Your task to perform on an android device: toggle notifications settings in the gmail app Image 0: 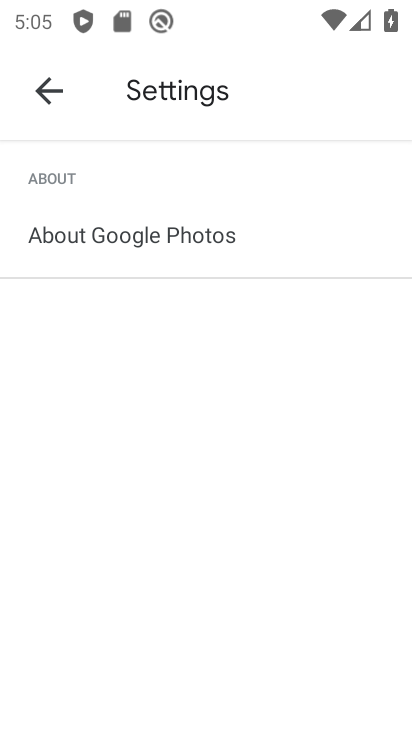
Step 0: press home button
Your task to perform on an android device: toggle notifications settings in the gmail app Image 1: 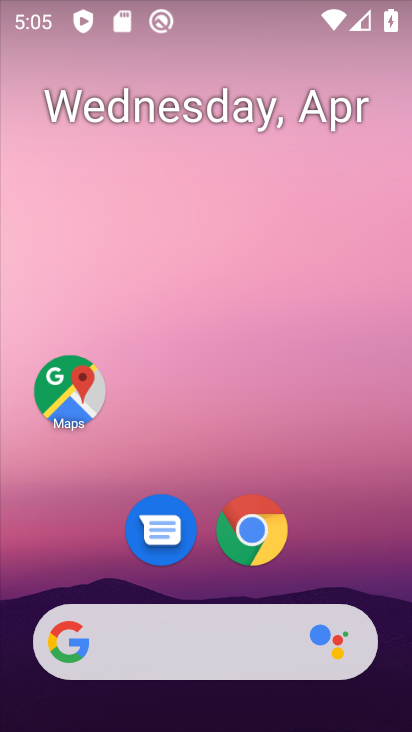
Step 1: drag from (337, 557) to (317, 2)
Your task to perform on an android device: toggle notifications settings in the gmail app Image 2: 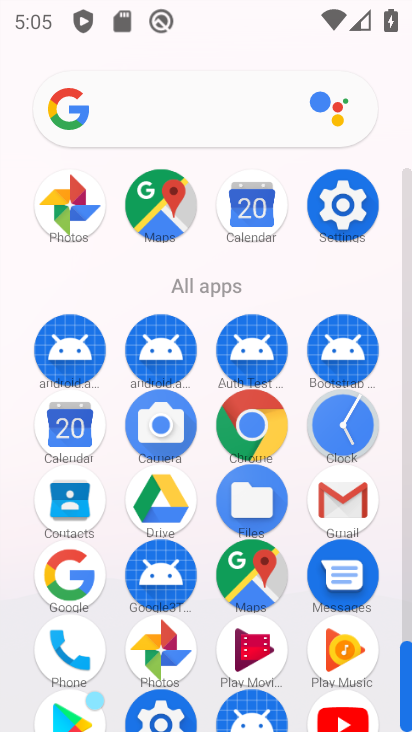
Step 2: click (343, 504)
Your task to perform on an android device: toggle notifications settings in the gmail app Image 3: 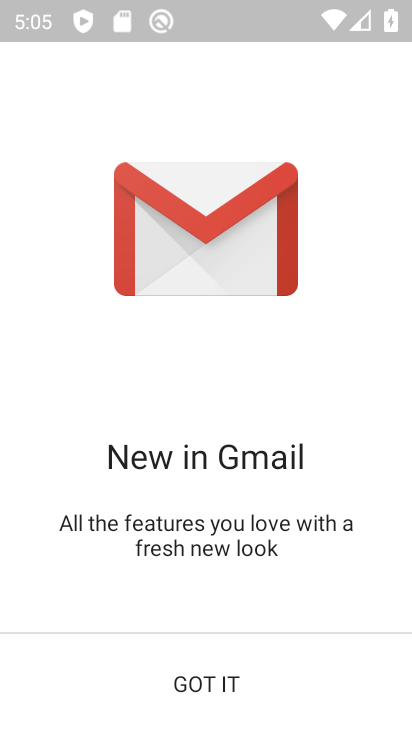
Step 3: click (200, 684)
Your task to perform on an android device: toggle notifications settings in the gmail app Image 4: 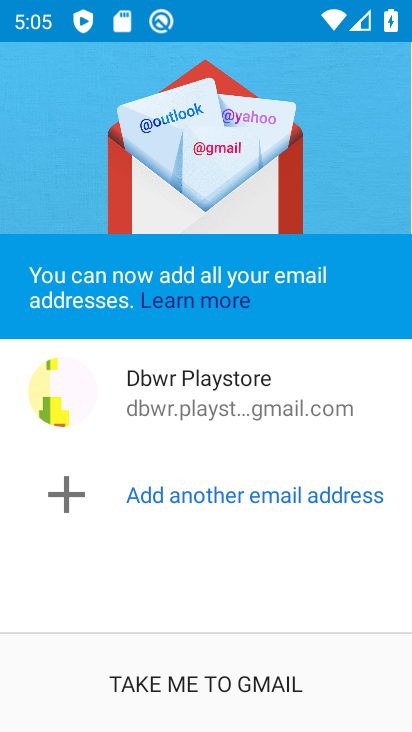
Step 4: click (200, 684)
Your task to perform on an android device: toggle notifications settings in the gmail app Image 5: 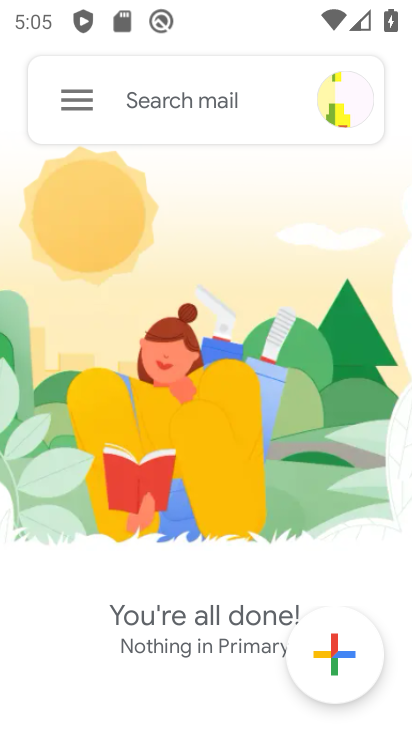
Step 5: click (74, 106)
Your task to perform on an android device: toggle notifications settings in the gmail app Image 6: 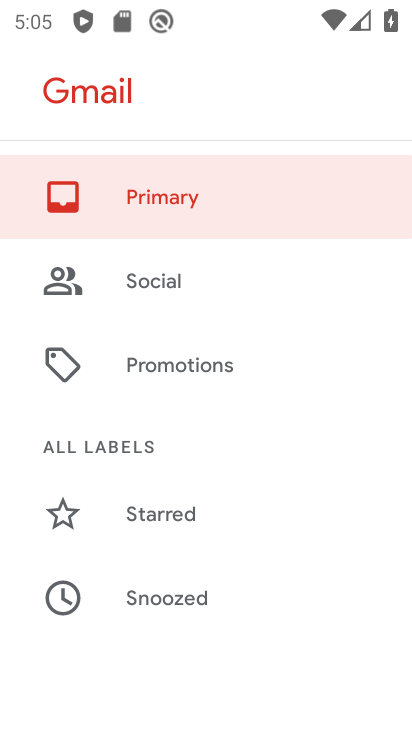
Step 6: drag from (206, 571) to (247, 388)
Your task to perform on an android device: toggle notifications settings in the gmail app Image 7: 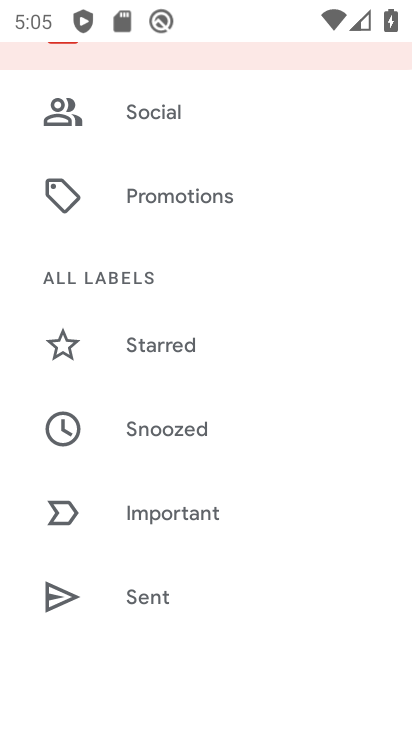
Step 7: drag from (209, 553) to (210, 416)
Your task to perform on an android device: toggle notifications settings in the gmail app Image 8: 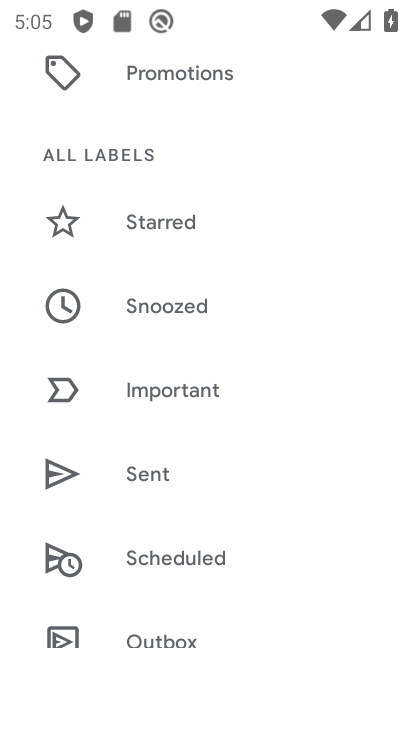
Step 8: drag from (204, 511) to (219, 426)
Your task to perform on an android device: toggle notifications settings in the gmail app Image 9: 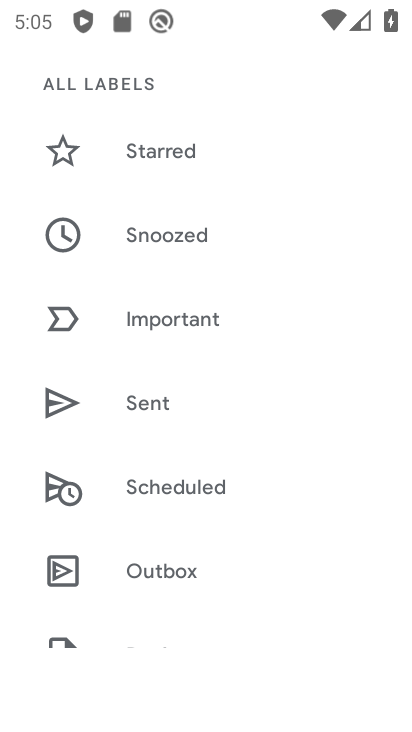
Step 9: drag from (202, 541) to (203, 399)
Your task to perform on an android device: toggle notifications settings in the gmail app Image 10: 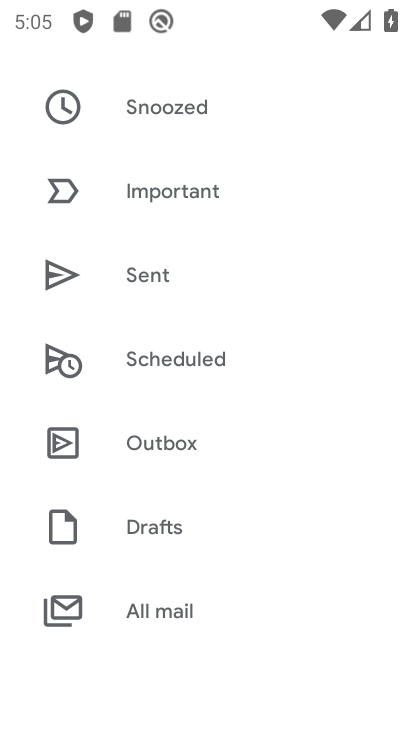
Step 10: drag from (194, 582) to (219, 438)
Your task to perform on an android device: toggle notifications settings in the gmail app Image 11: 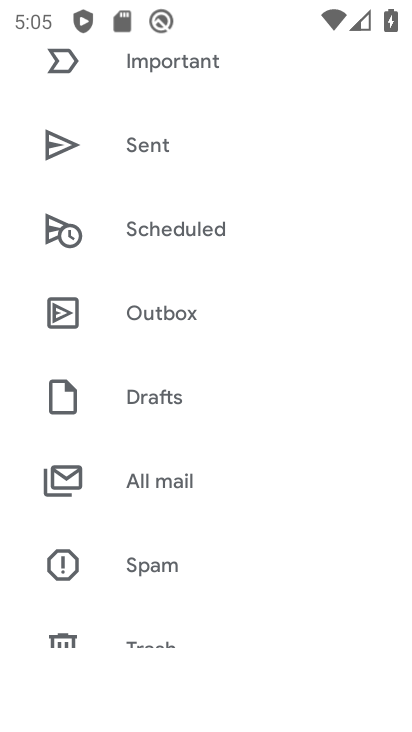
Step 11: drag from (176, 606) to (203, 440)
Your task to perform on an android device: toggle notifications settings in the gmail app Image 12: 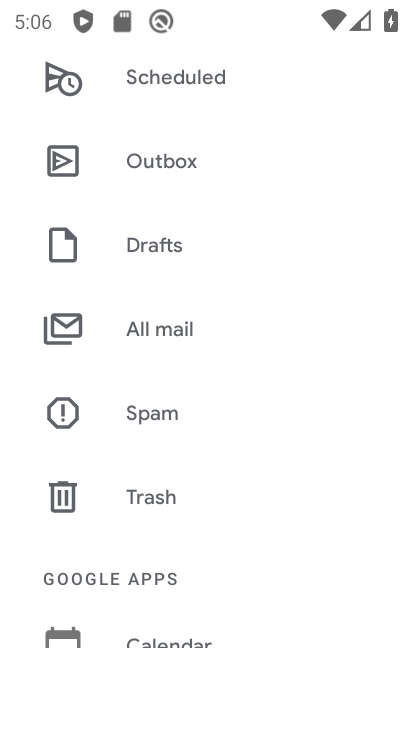
Step 12: drag from (188, 558) to (216, 396)
Your task to perform on an android device: toggle notifications settings in the gmail app Image 13: 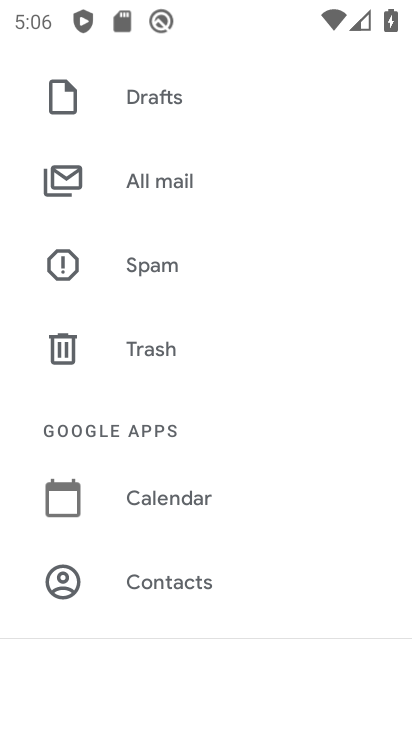
Step 13: drag from (182, 522) to (222, 358)
Your task to perform on an android device: toggle notifications settings in the gmail app Image 14: 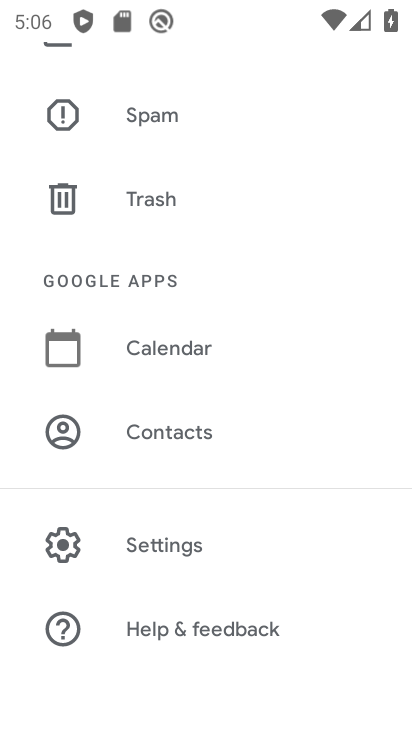
Step 14: click (184, 547)
Your task to perform on an android device: toggle notifications settings in the gmail app Image 15: 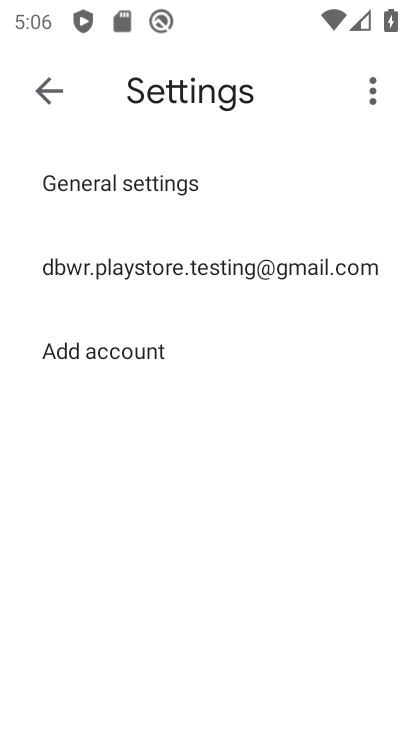
Step 15: click (237, 275)
Your task to perform on an android device: toggle notifications settings in the gmail app Image 16: 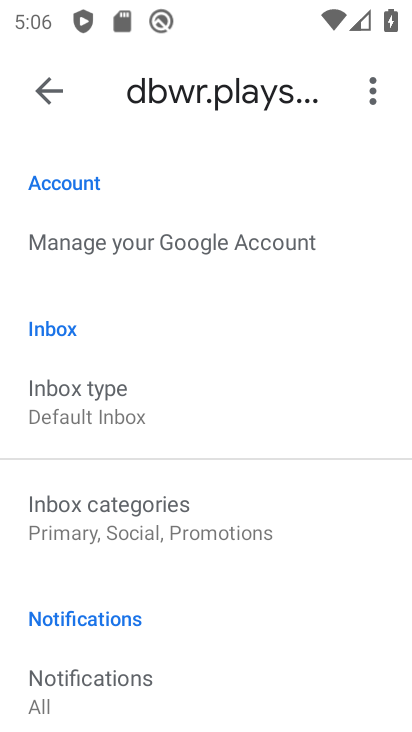
Step 16: drag from (151, 603) to (180, 379)
Your task to perform on an android device: toggle notifications settings in the gmail app Image 17: 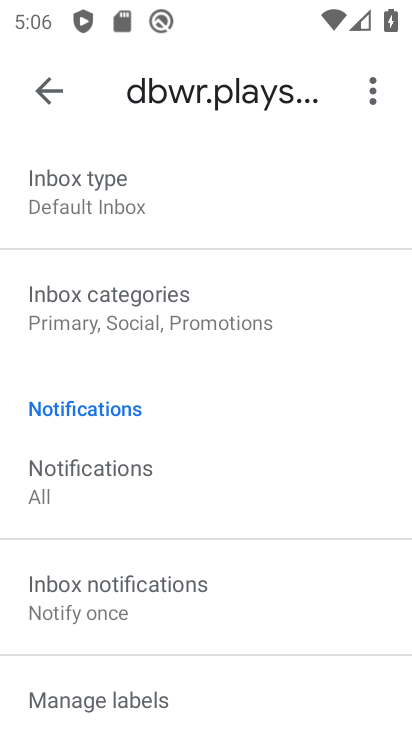
Step 17: drag from (188, 490) to (207, 329)
Your task to perform on an android device: toggle notifications settings in the gmail app Image 18: 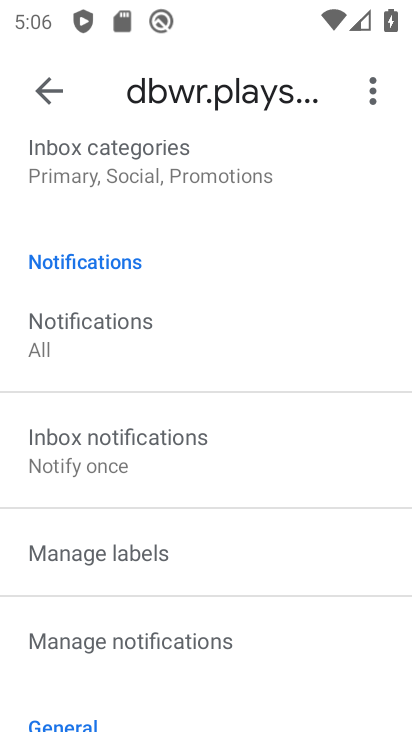
Step 18: drag from (199, 597) to (218, 395)
Your task to perform on an android device: toggle notifications settings in the gmail app Image 19: 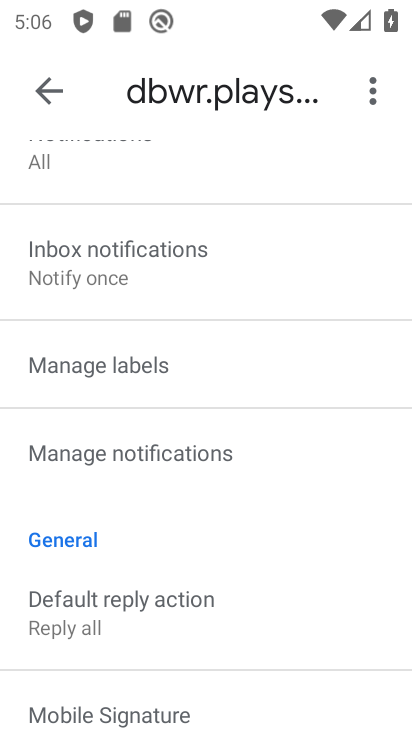
Step 19: click (205, 453)
Your task to perform on an android device: toggle notifications settings in the gmail app Image 20: 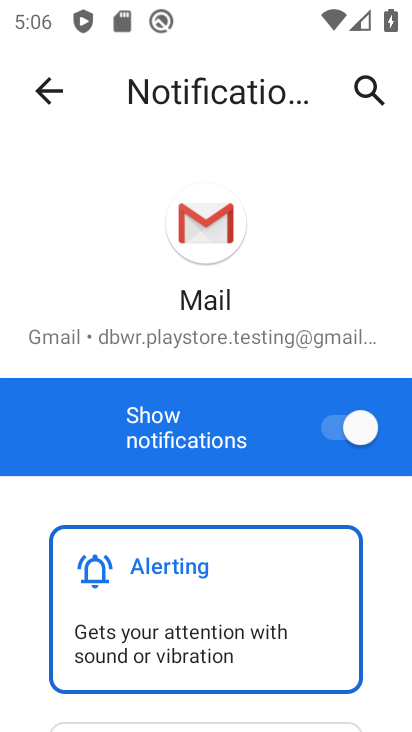
Step 20: click (361, 436)
Your task to perform on an android device: toggle notifications settings in the gmail app Image 21: 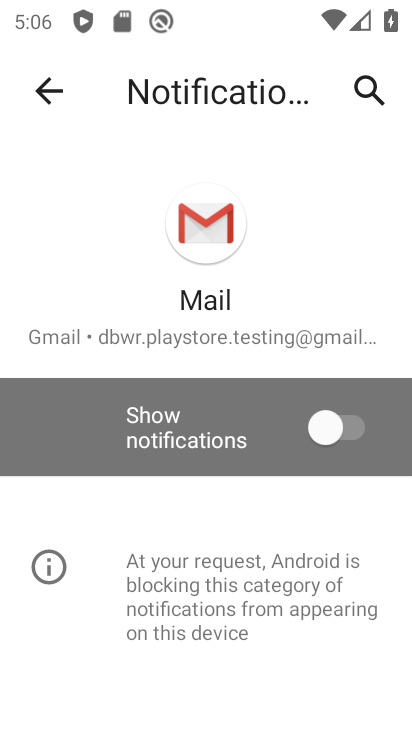
Step 21: task complete